Your task to perform on an android device: change notification settings in the gmail app Image 0: 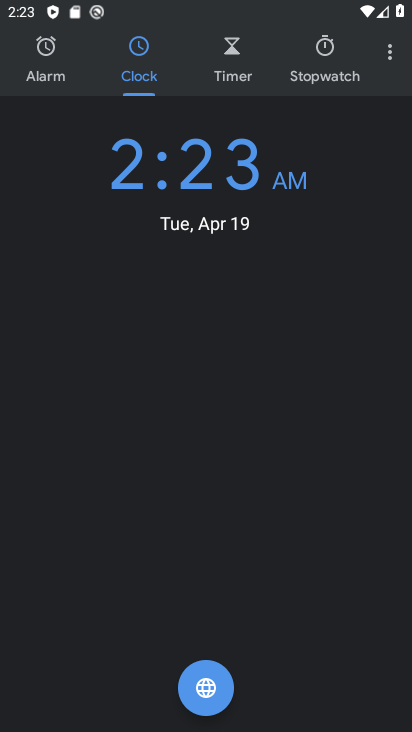
Step 0: press home button
Your task to perform on an android device: change notification settings in the gmail app Image 1: 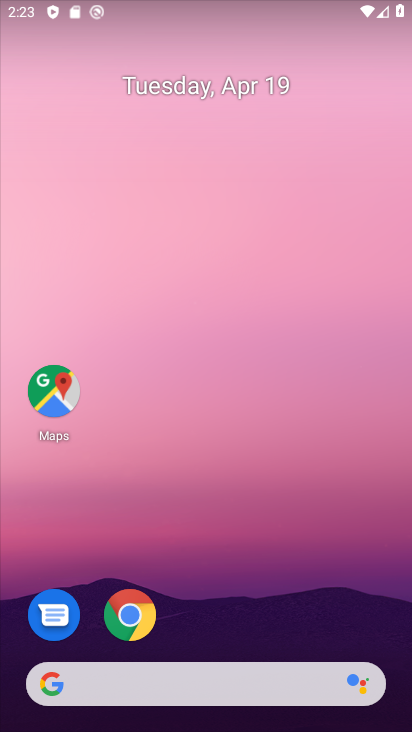
Step 1: drag from (260, 616) to (265, 150)
Your task to perform on an android device: change notification settings in the gmail app Image 2: 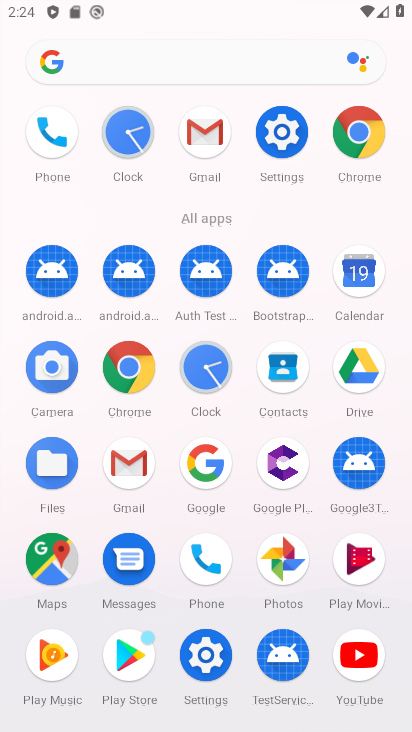
Step 2: click (125, 460)
Your task to perform on an android device: change notification settings in the gmail app Image 3: 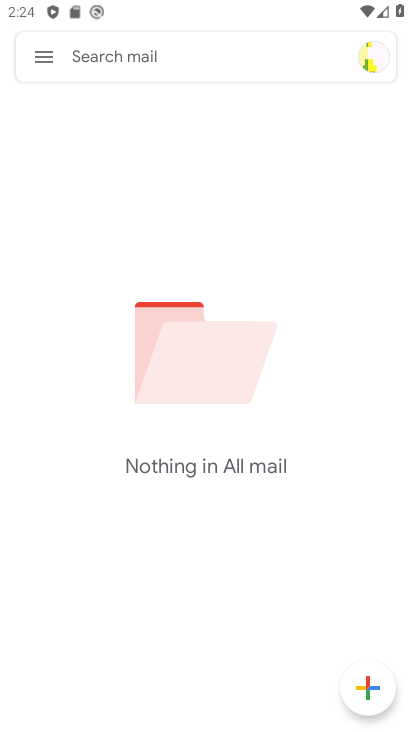
Step 3: click (47, 54)
Your task to perform on an android device: change notification settings in the gmail app Image 4: 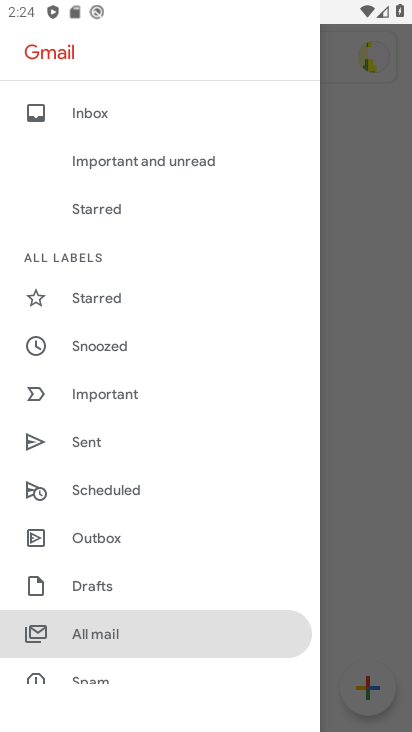
Step 4: drag from (137, 563) to (224, 128)
Your task to perform on an android device: change notification settings in the gmail app Image 5: 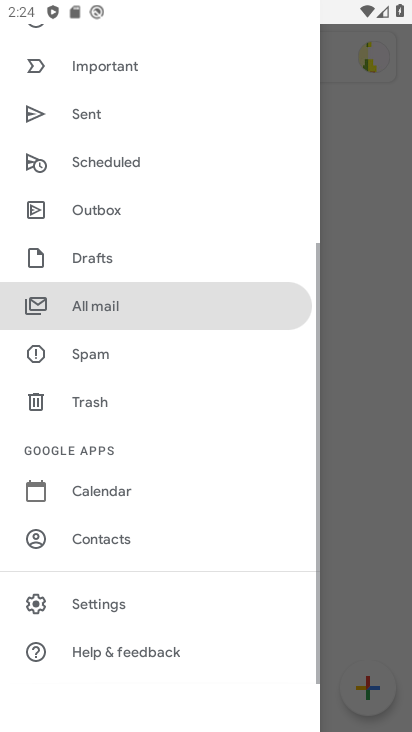
Step 5: click (106, 592)
Your task to perform on an android device: change notification settings in the gmail app Image 6: 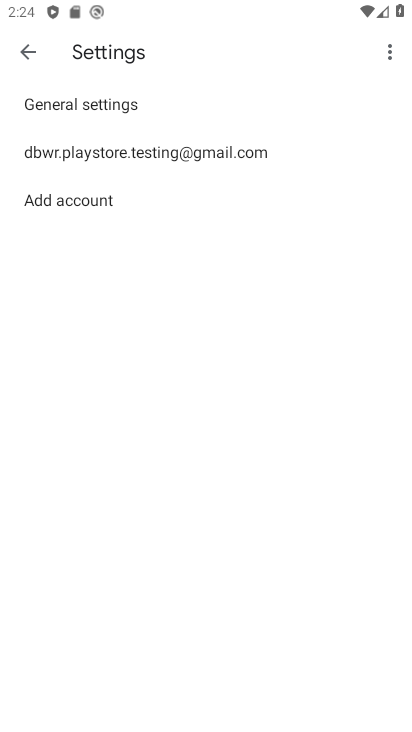
Step 6: click (149, 147)
Your task to perform on an android device: change notification settings in the gmail app Image 7: 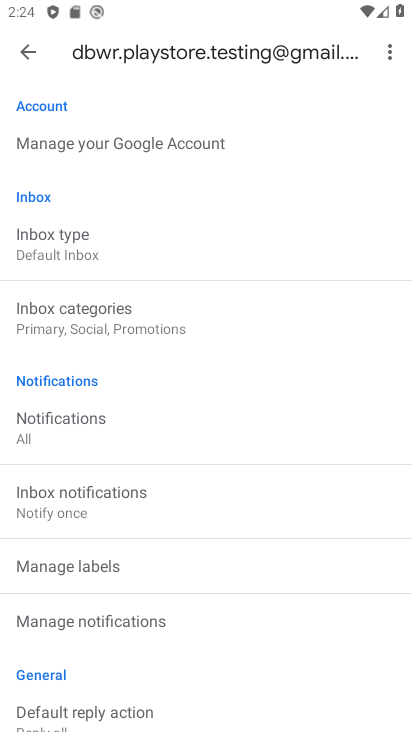
Step 7: click (77, 415)
Your task to perform on an android device: change notification settings in the gmail app Image 8: 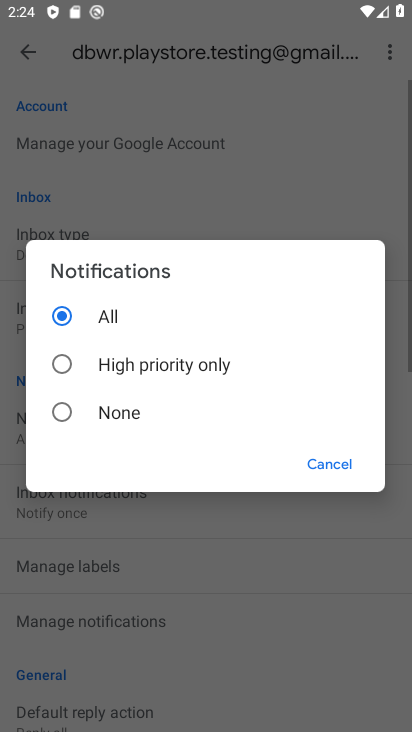
Step 8: click (129, 406)
Your task to perform on an android device: change notification settings in the gmail app Image 9: 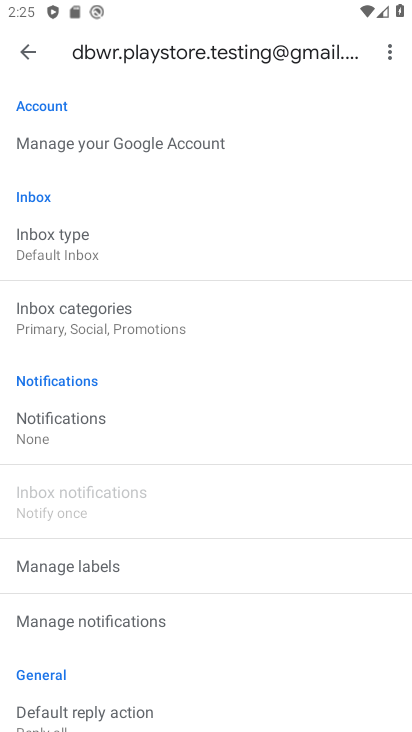
Step 9: task complete